Your task to perform on an android device: read, delete, or share a saved page in the chrome app Image 0: 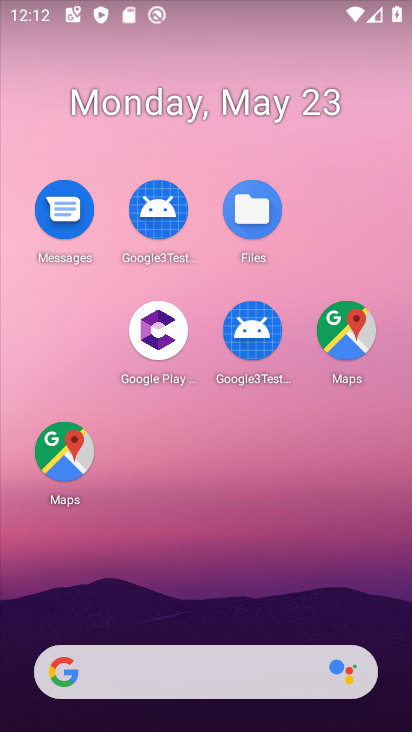
Step 0: drag from (100, 617) to (109, 323)
Your task to perform on an android device: read, delete, or share a saved page in the chrome app Image 1: 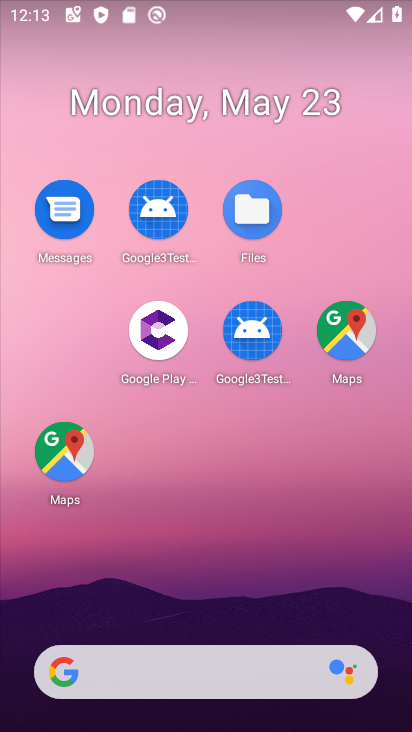
Step 1: drag from (214, 636) to (372, 14)
Your task to perform on an android device: read, delete, or share a saved page in the chrome app Image 2: 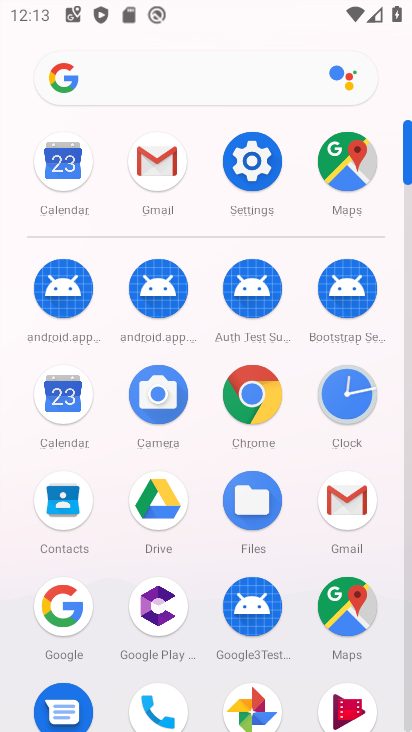
Step 2: click (255, 383)
Your task to perform on an android device: read, delete, or share a saved page in the chrome app Image 3: 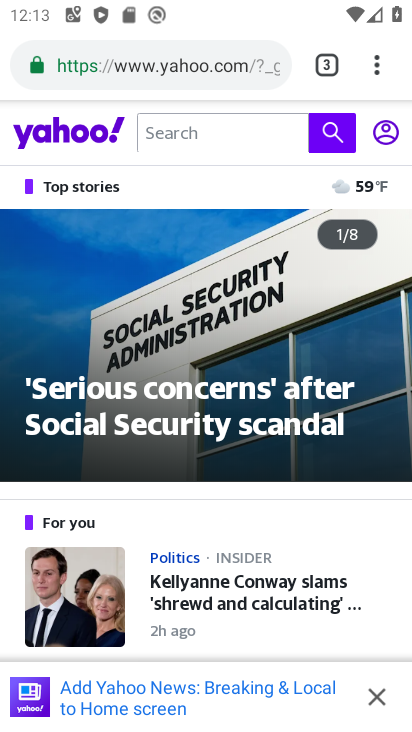
Step 3: click (378, 63)
Your task to perform on an android device: read, delete, or share a saved page in the chrome app Image 4: 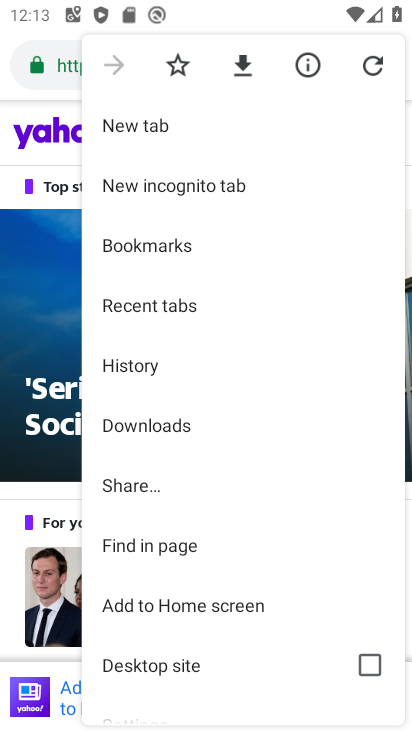
Step 4: drag from (204, 656) to (214, 438)
Your task to perform on an android device: read, delete, or share a saved page in the chrome app Image 5: 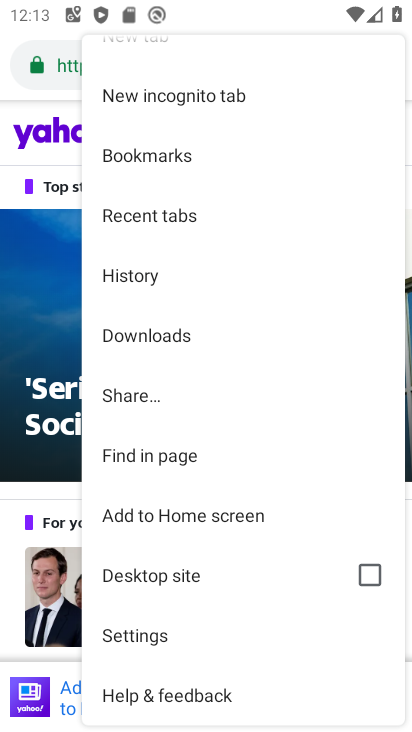
Step 5: click (133, 616)
Your task to perform on an android device: read, delete, or share a saved page in the chrome app Image 6: 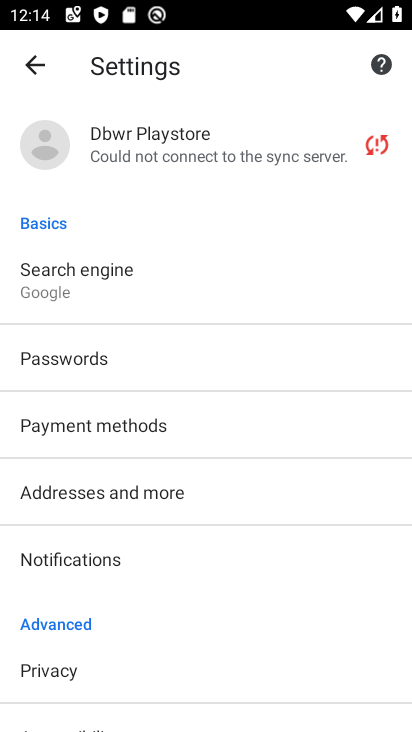
Step 6: drag from (210, 641) to (228, 139)
Your task to perform on an android device: read, delete, or share a saved page in the chrome app Image 7: 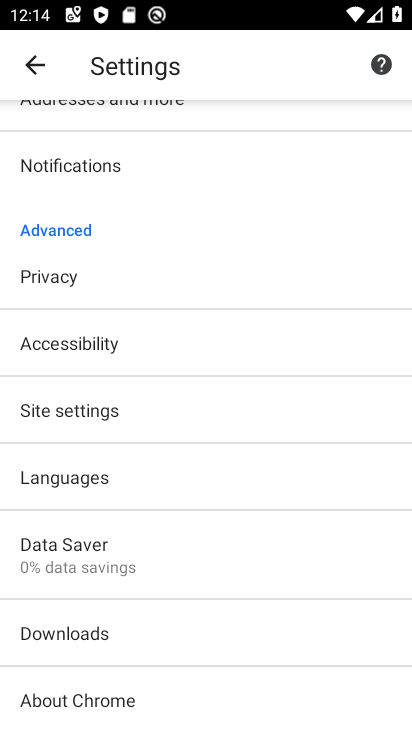
Step 7: click (78, 636)
Your task to perform on an android device: read, delete, or share a saved page in the chrome app Image 8: 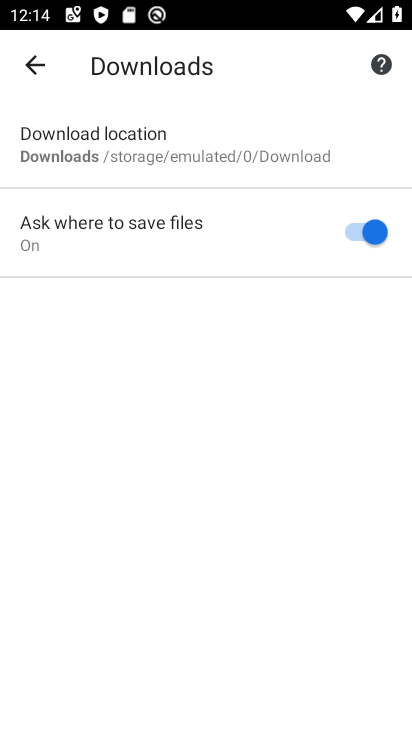
Step 8: task complete